Your task to perform on an android device: turn on priority inbox in the gmail app Image 0: 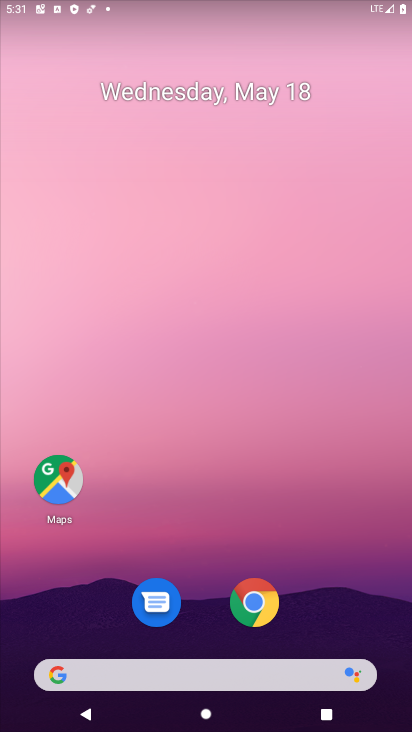
Step 0: drag from (279, 683) to (272, 31)
Your task to perform on an android device: turn on priority inbox in the gmail app Image 1: 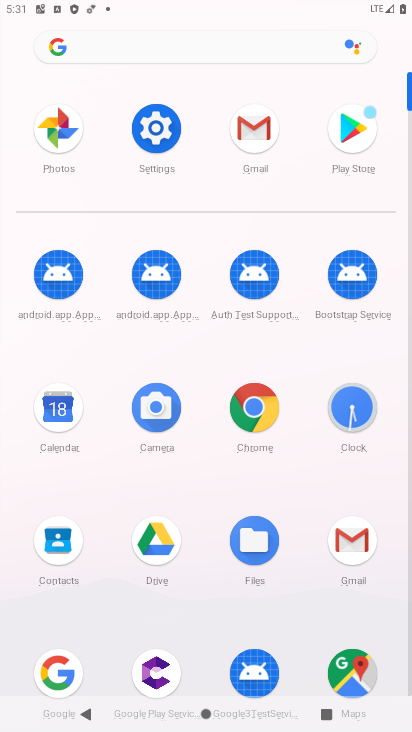
Step 1: click (367, 549)
Your task to perform on an android device: turn on priority inbox in the gmail app Image 2: 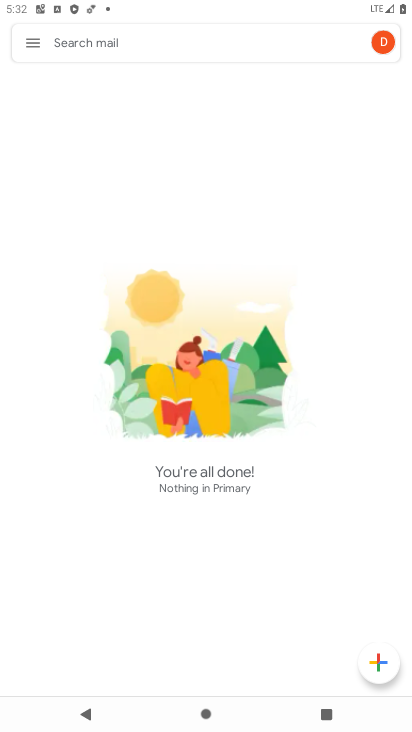
Step 2: click (22, 37)
Your task to perform on an android device: turn on priority inbox in the gmail app Image 3: 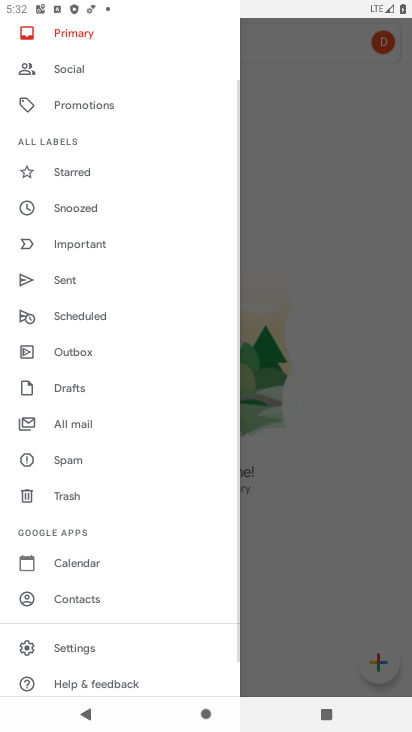
Step 3: click (89, 649)
Your task to perform on an android device: turn on priority inbox in the gmail app Image 4: 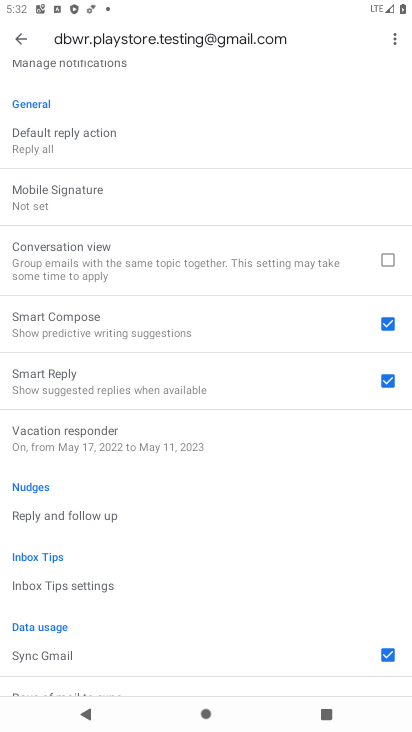
Step 4: drag from (85, 187) to (376, 626)
Your task to perform on an android device: turn on priority inbox in the gmail app Image 5: 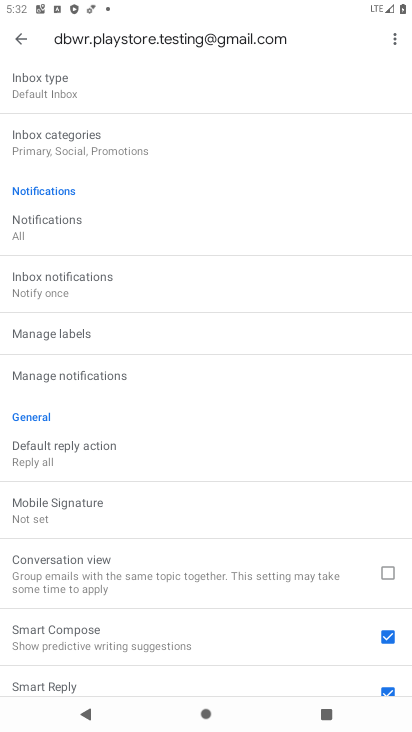
Step 5: drag from (103, 193) to (139, 677)
Your task to perform on an android device: turn on priority inbox in the gmail app Image 6: 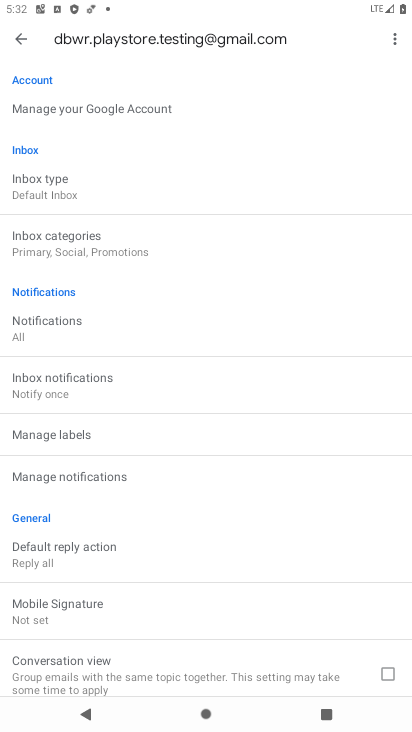
Step 6: click (77, 200)
Your task to perform on an android device: turn on priority inbox in the gmail app Image 7: 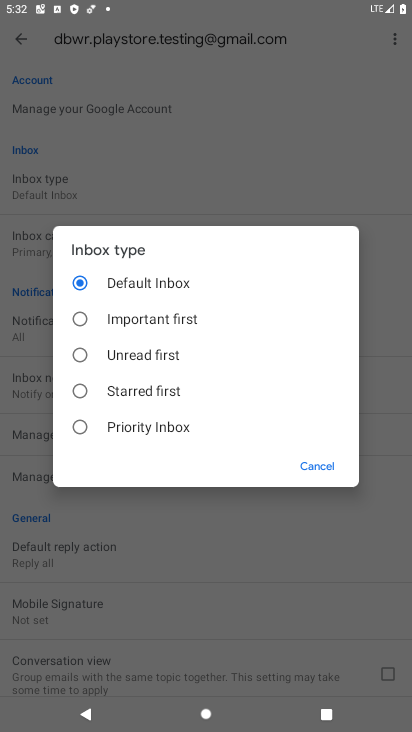
Step 7: click (141, 426)
Your task to perform on an android device: turn on priority inbox in the gmail app Image 8: 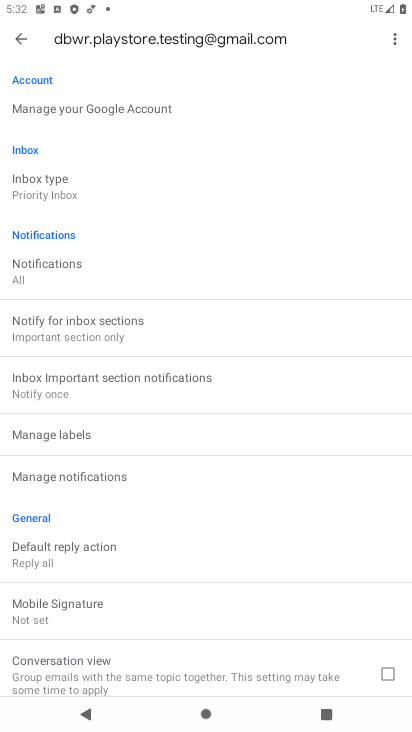
Step 8: task complete